Your task to perform on an android device: toggle sleep mode Image 0: 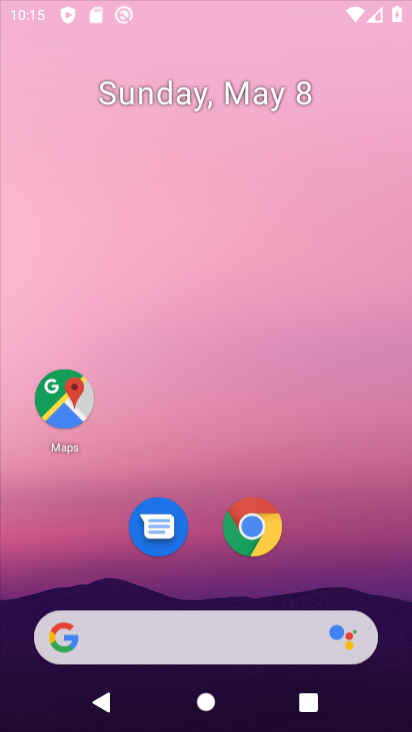
Step 0: click (266, 41)
Your task to perform on an android device: toggle sleep mode Image 1: 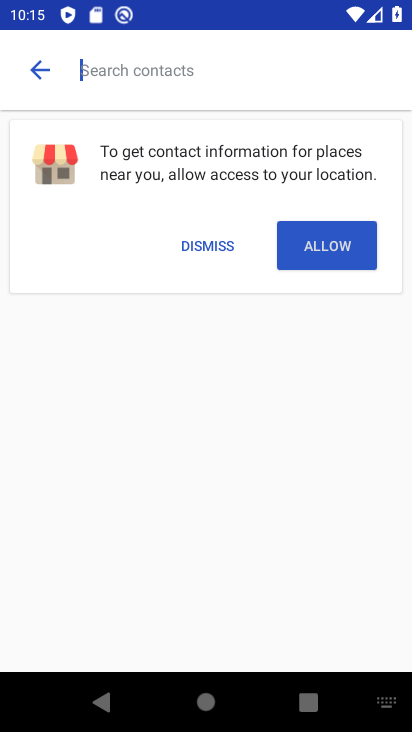
Step 1: press home button
Your task to perform on an android device: toggle sleep mode Image 2: 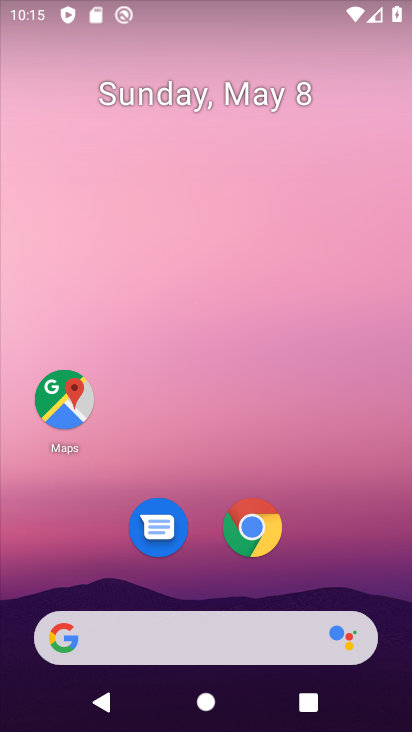
Step 2: drag from (336, 575) to (338, 237)
Your task to perform on an android device: toggle sleep mode Image 3: 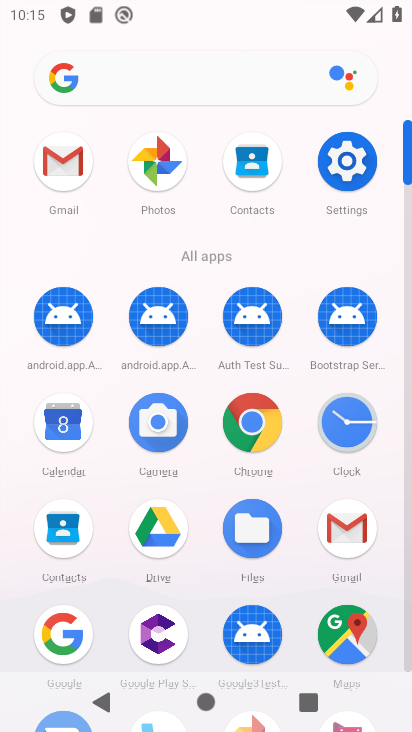
Step 3: click (358, 173)
Your task to perform on an android device: toggle sleep mode Image 4: 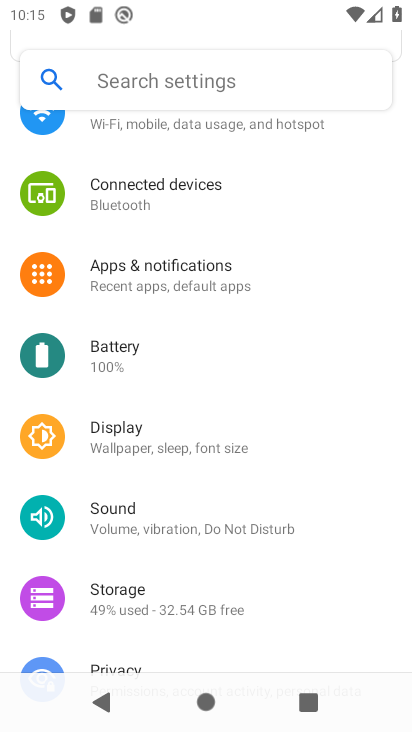
Step 4: drag from (175, 588) to (219, 262)
Your task to perform on an android device: toggle sleep mode Image 5: 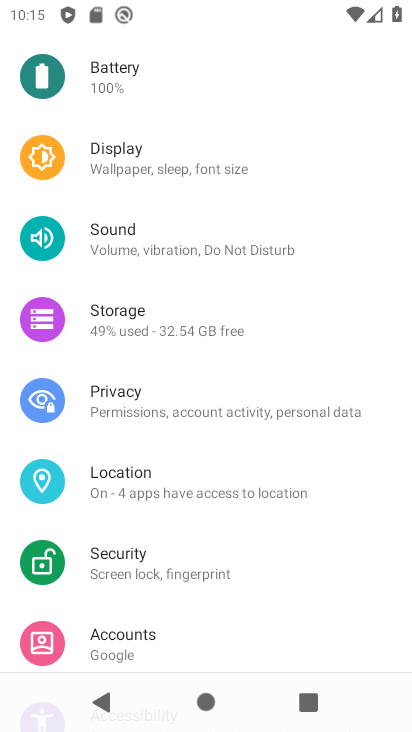
Step 5: click (196, 174)
Your task to perform on an android device: toggle sleep mode Image 6: 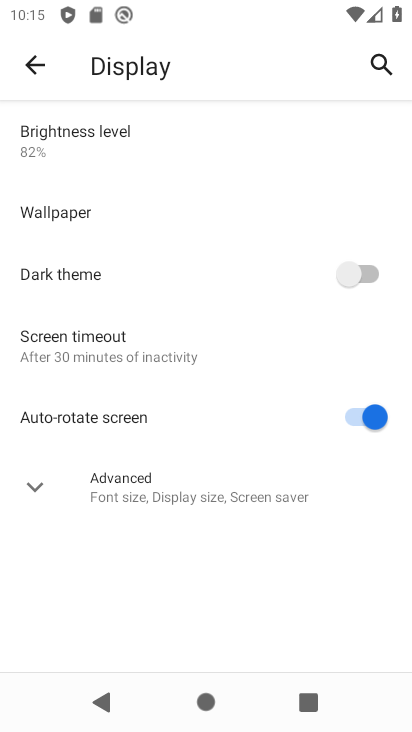
Step 6: click (27, 494)
Your task to perform on an android device: toggle sleep mode Image 7: 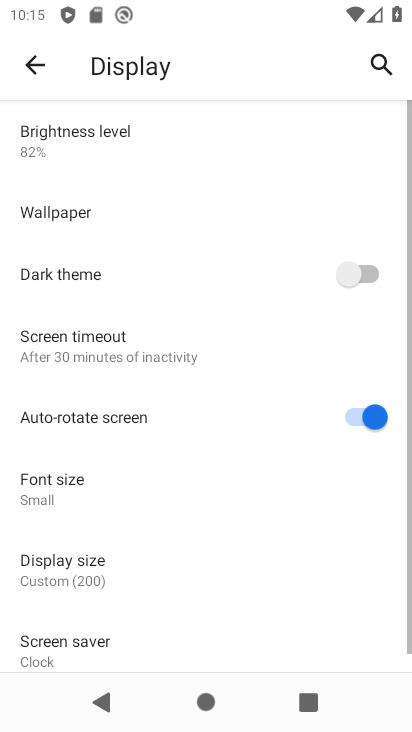
Step 7: task complete